Your task to perform on an android device: turn on priority inbox in the gmail app Image 0: 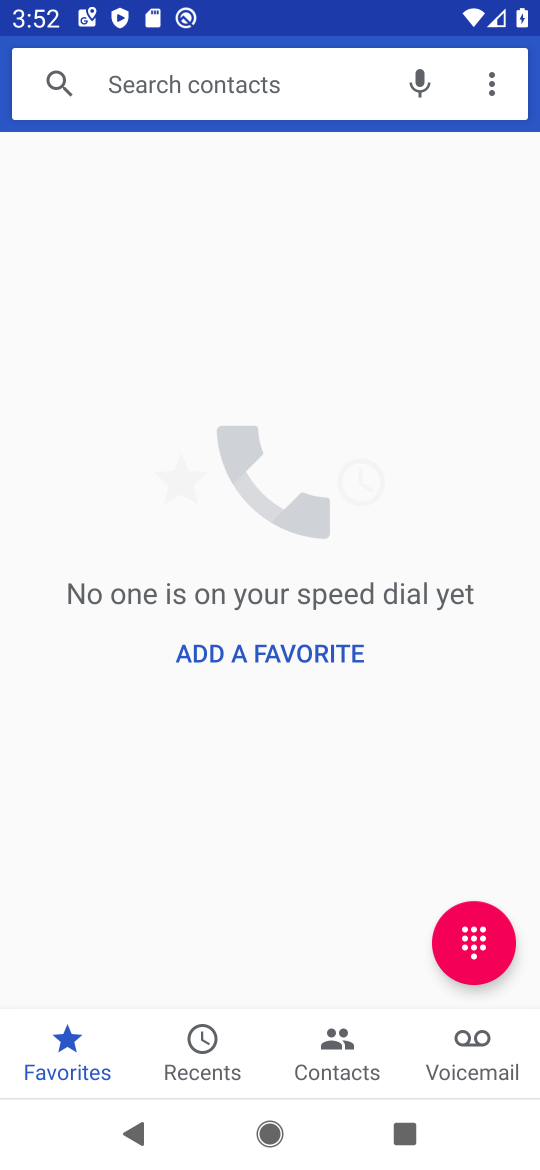
Step 0: press home button
Your task to perform on an android device: turn on priority inbox in the gmail app Image 1: 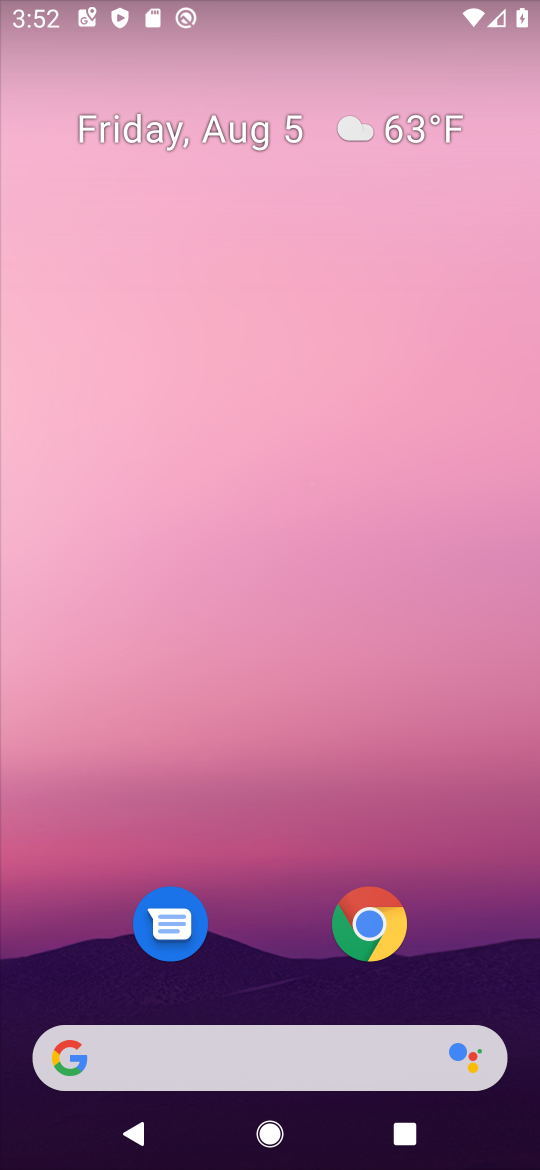
Step 1: drag from (285, 958) to (328, 187)
Your task to perform on an android device: turn on priority inbox in the gmail app Image 2: 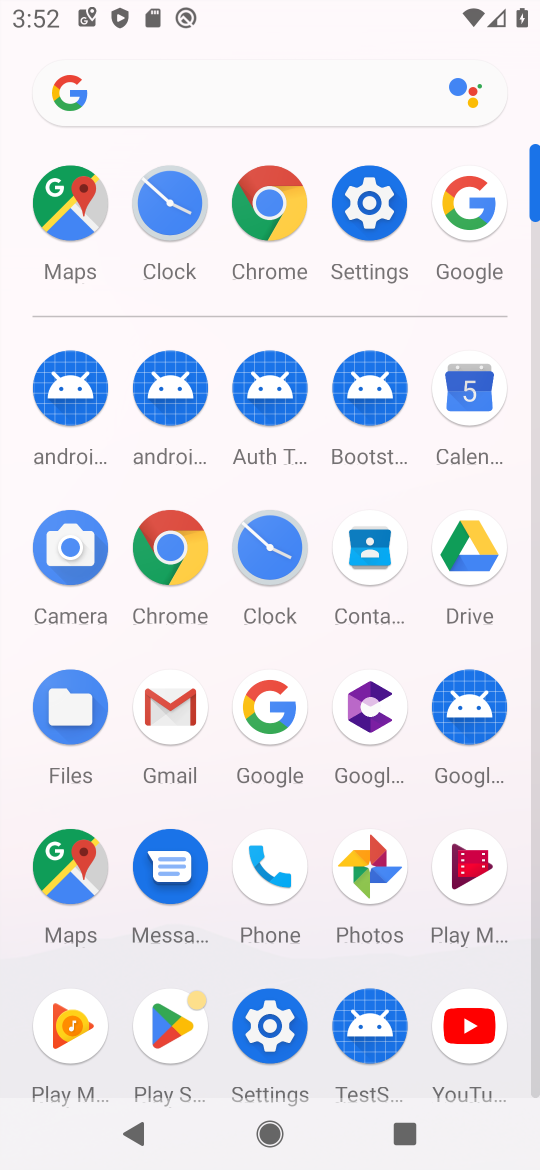
Step 2: click (180, 734)
Your task to perform on an android device: turn on priority inbox in the gmail app Image 3: 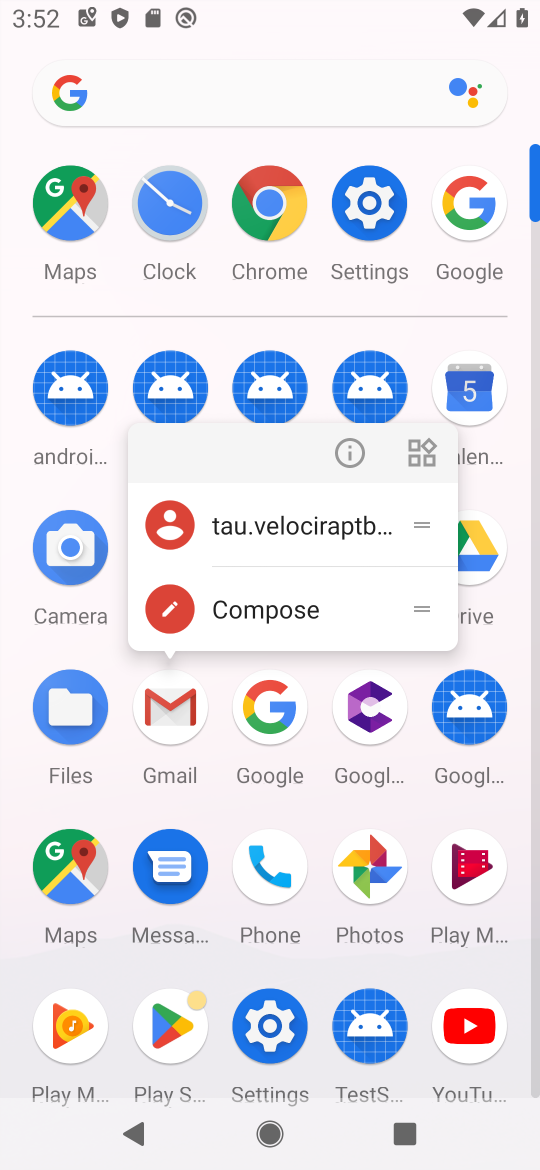
Step 3: click (158, 729)
Your task to perform on an android device: turn on priority inbox in the gmail app Image 4: 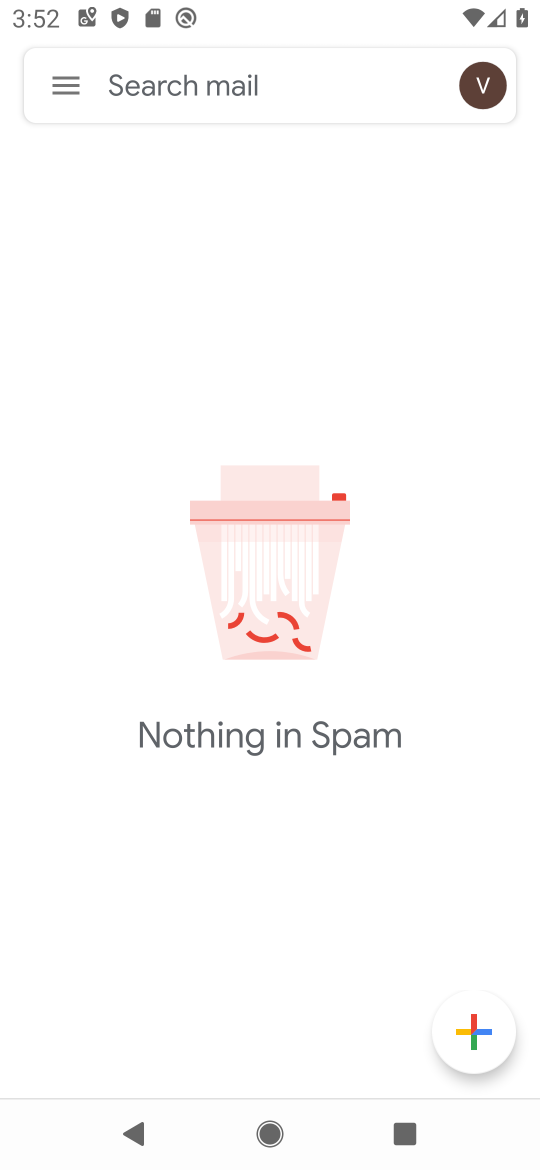
Step 4: click (54, 94)
Your task to perform on an android device: turn on priority inbox in the gmail app Image 5: 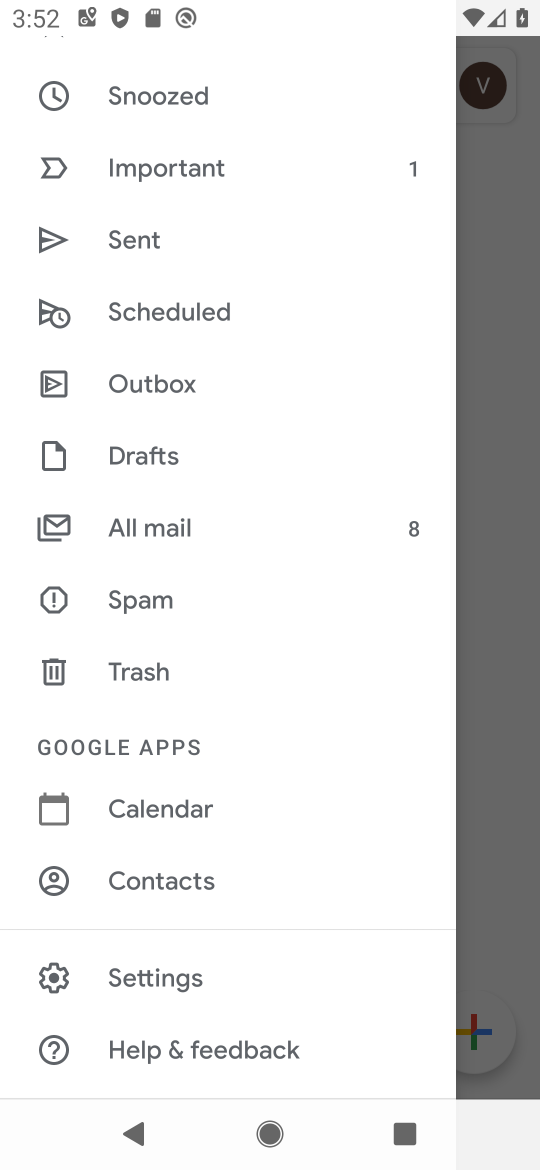
Step 5: drag from (280, 780) to (230, 266)
Your task to perform on an android device: turn on priority inbox in the gmail app Image 6: 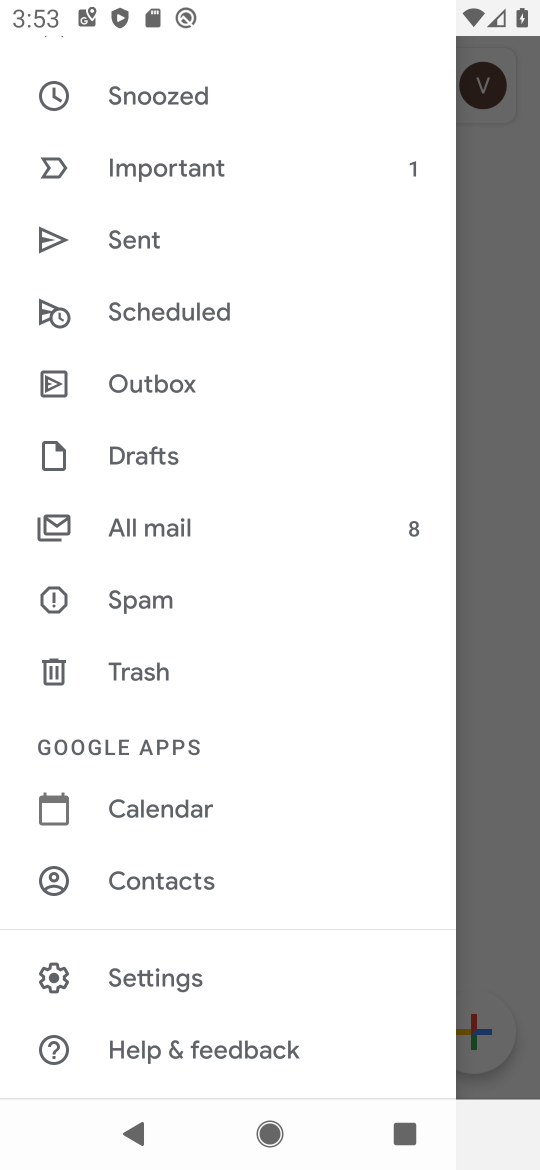
Step 6: drag from (296, 481) to (361, 310)
Your task to perform on an android device: turn on priority inbox in the gmail app Image 7: 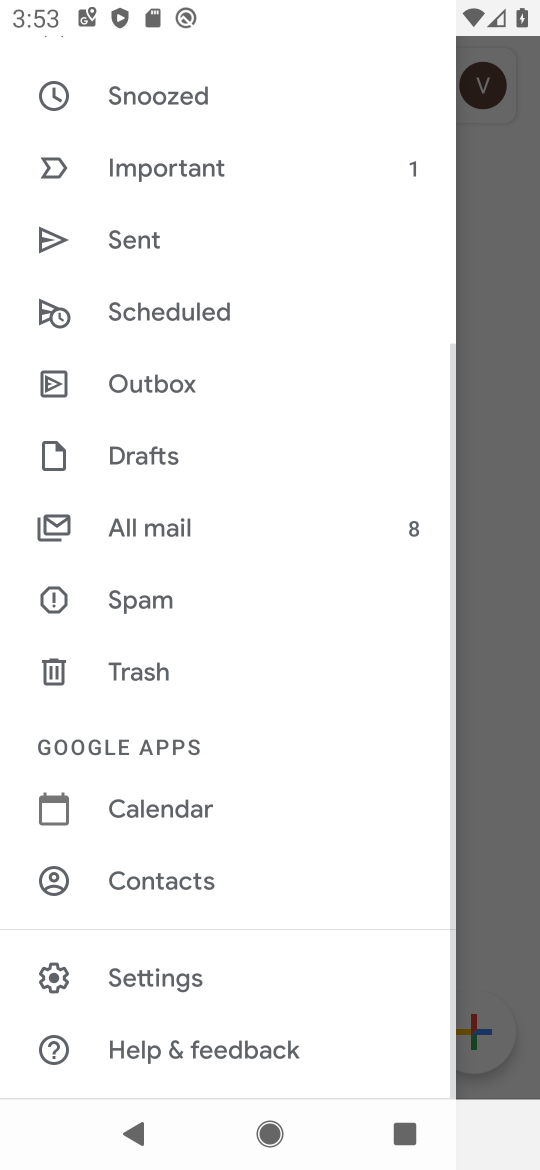
Step 7: click (206, 971)
Your task to perform on an android device: turn on priority inbox in the gmail app Image 8: 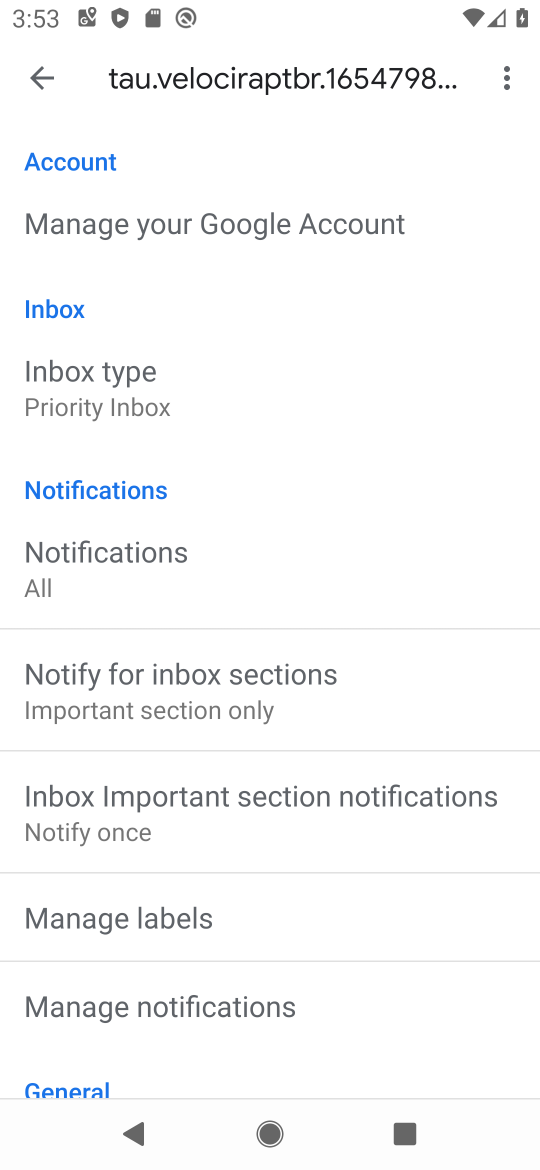
Step 8: task complete